Your task to perform on an android device: turn off sleep mode Image 0: 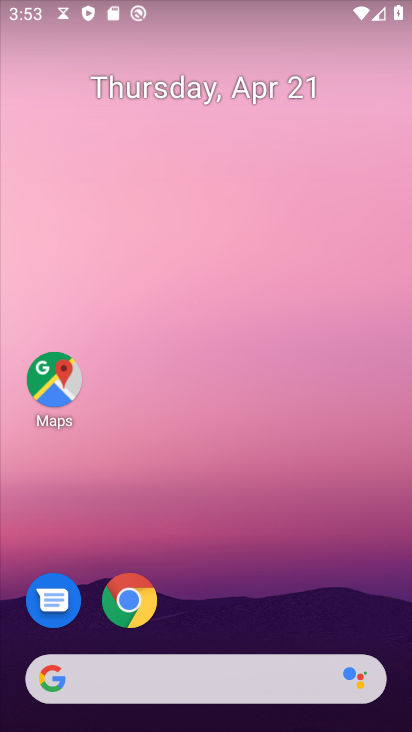
Step 0: drag from (236, 585) to (236, 132)
Your task to perform on an android device: turn off sleep mode Image 1: 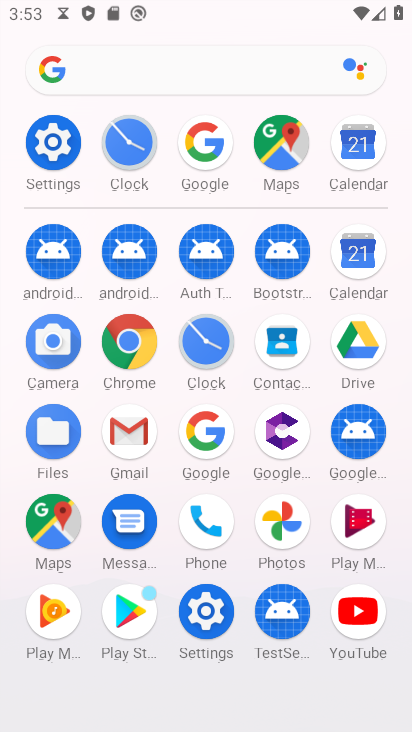
Step 1: click (55, 139)
Your task to perform on an android device: turn off sleep mode Image 2: 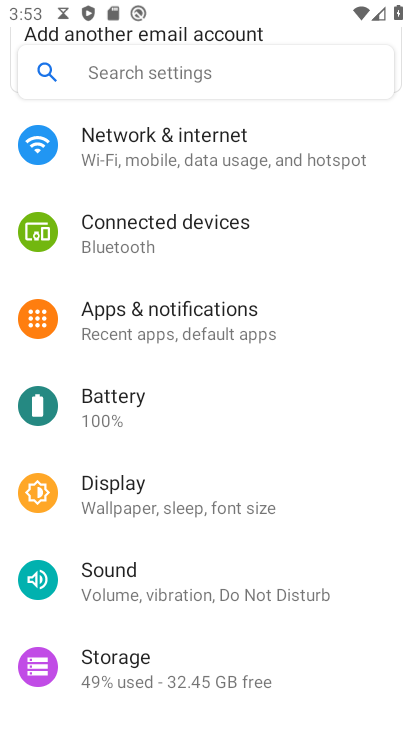
Step 2: drag from (140, 373) to (178, 254)
Your task to perform on an android device: turn off sleep mode Image 3: 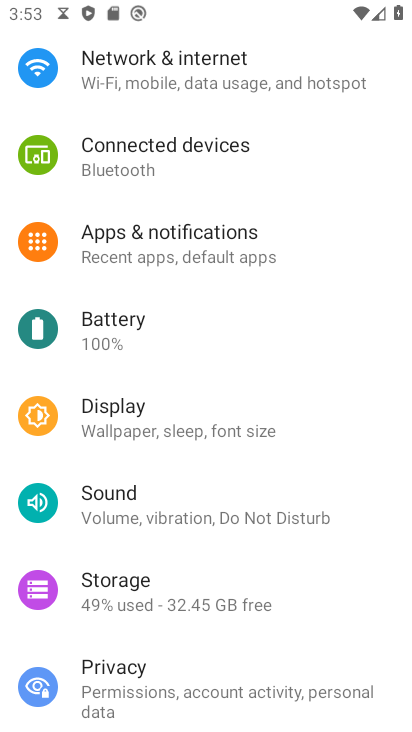
Step 3: drag from (154, 411) to (199, 305)
Your task to perform on an android device: turn off sleep mode Image 4: 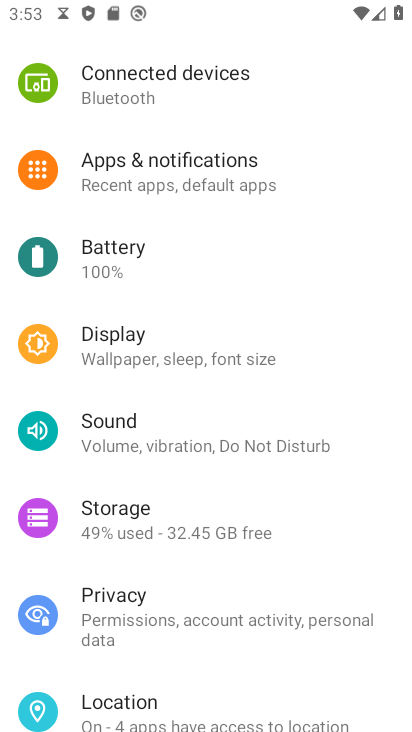
Step 4: drag from (160, 398) to (212, 305)
Your task to perform on an android device: turn off sleep mode Image 5: 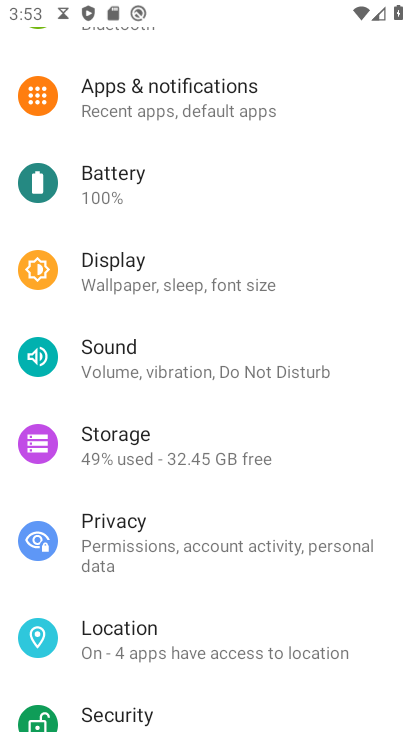
Step 5: click (228, 296)
Your task to perform on an android device: turn off sleep mode Image 6: 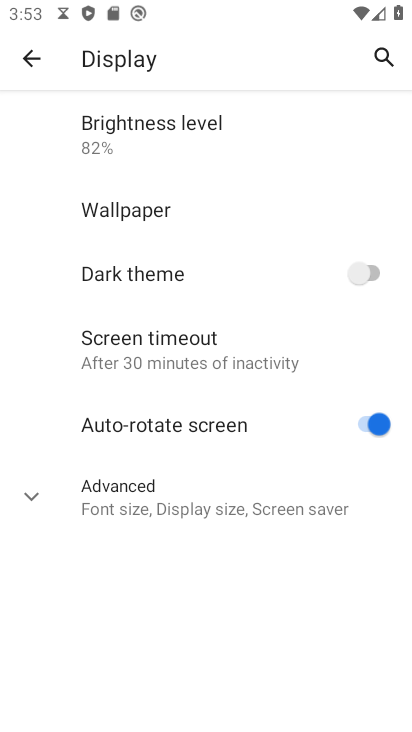
Step 6: click (195, 365)
Your task to perform on an android device: turn off sleep mode Image 7: 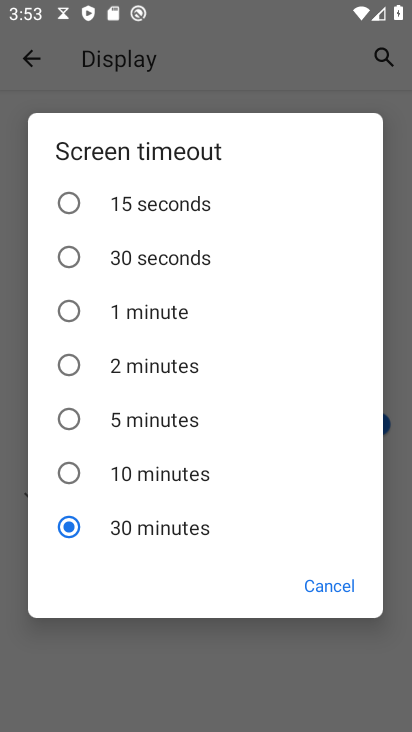
Step 7: click (331, 586)
Your task to perform on an android device: turn off sleep mode Image 8: 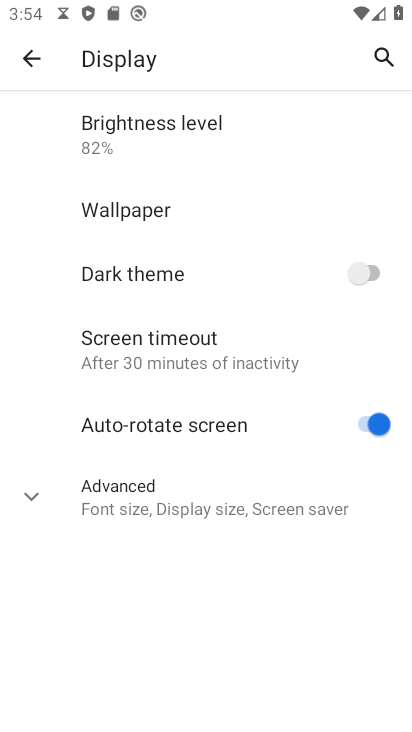
Step 8: click (217, 502)
Your task to perform on an android device: turn off sleep mode Image 9: 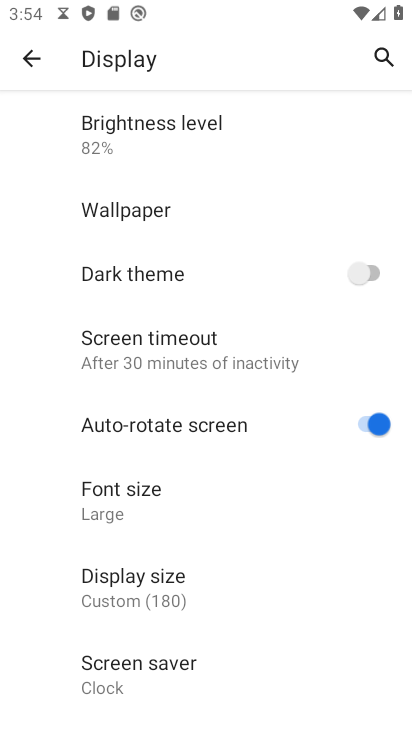
Step 9: task complete